Your task to perform on an android device: turn off picture-in-picture Image 0: 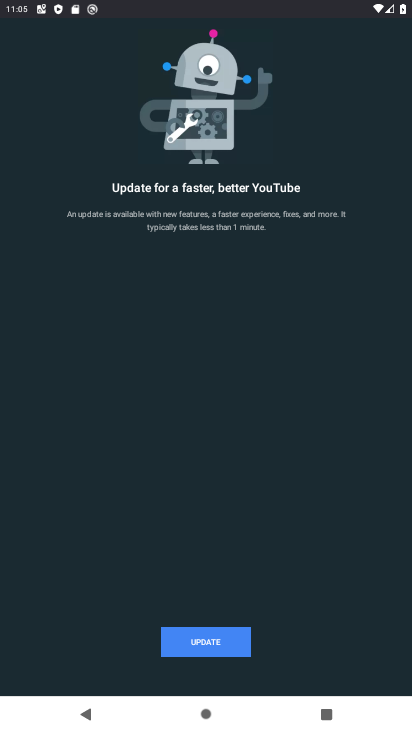
Step 0: press home button
Your task to perform on an android device: turn off picture-in-picture Image 1: 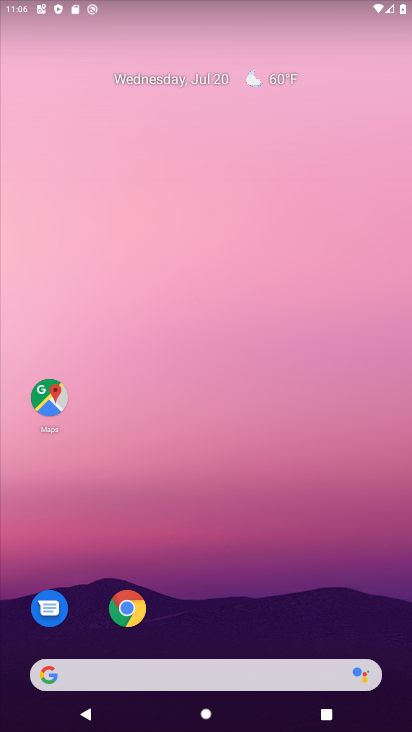
Step 1: click (127, 614)
Your task to perform on an android device: turn off picture-in-picture Image 2: 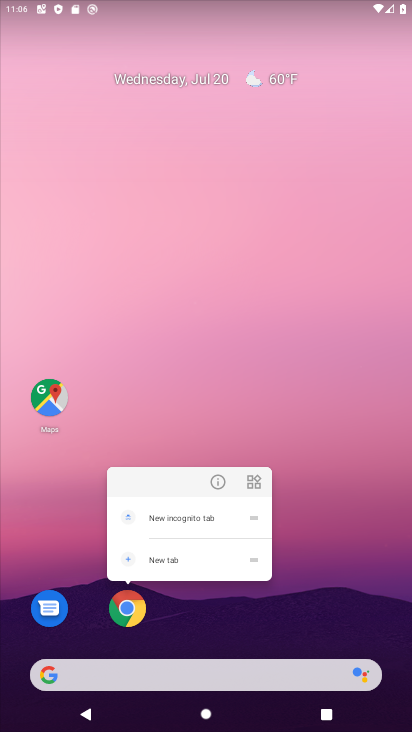
Step 2: click (223, 481)
Your task to perform on an android device: turn off picture-in-picture Image 3: 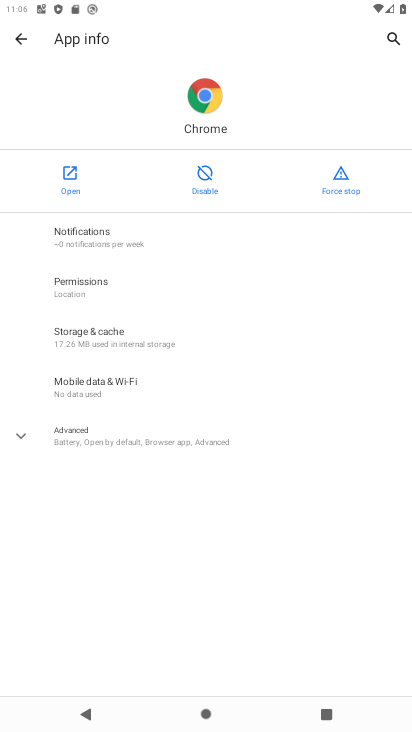
Step 3: click (99, 439)
Your task to perform on an android device: turn off picture-in-picture Image 4: 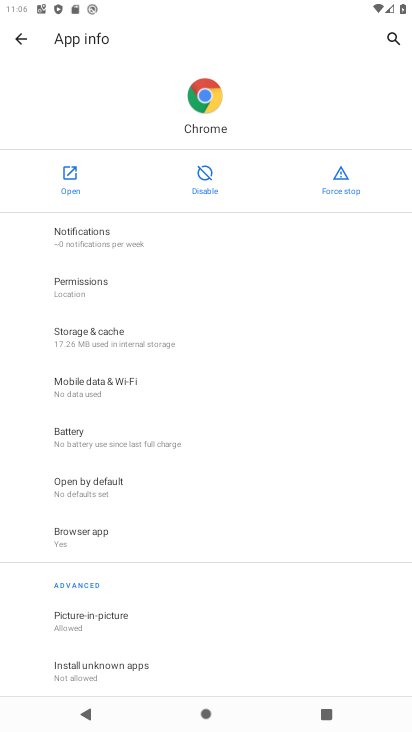
Step 4: click (111, 618)
Your task to perform on an android device: turn off picture-in-picture Image 5: 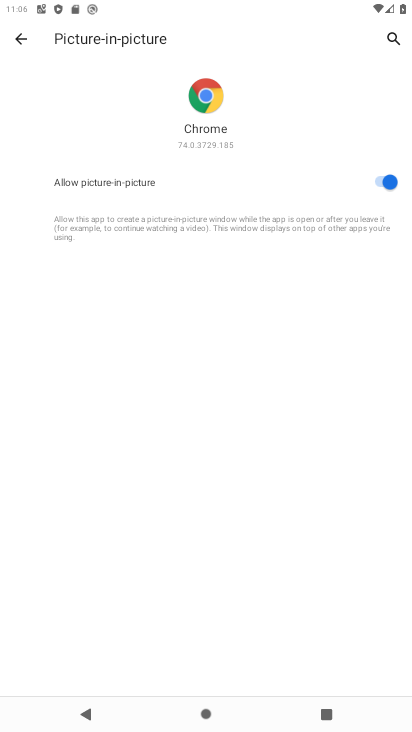
Step 5: click (389, 171)
Your task to perform on an android device: turn off picture-in-picture Image 6: 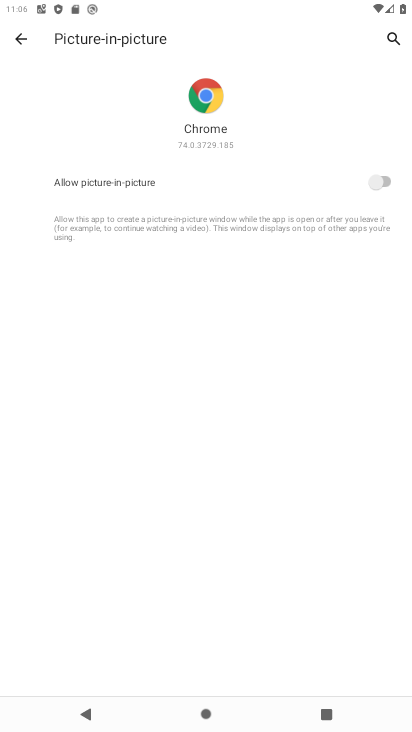
Step 6: task complete